Your task to perform on an android device: Go to Wikipedia Image 0: 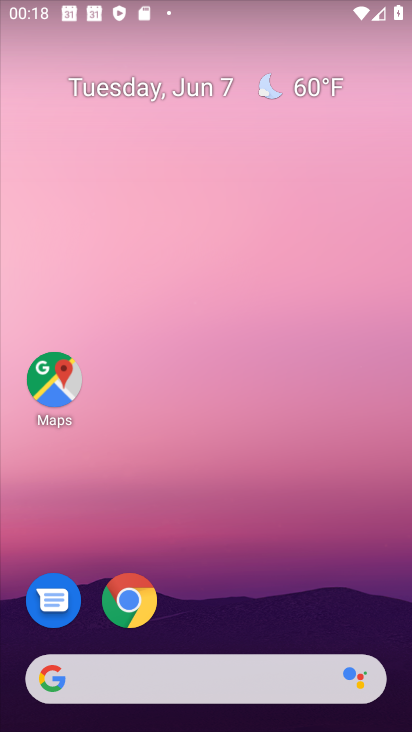
Step 0: click (237, 114)
Your task to perform on an android device: Go to Wikipedia Image 1: 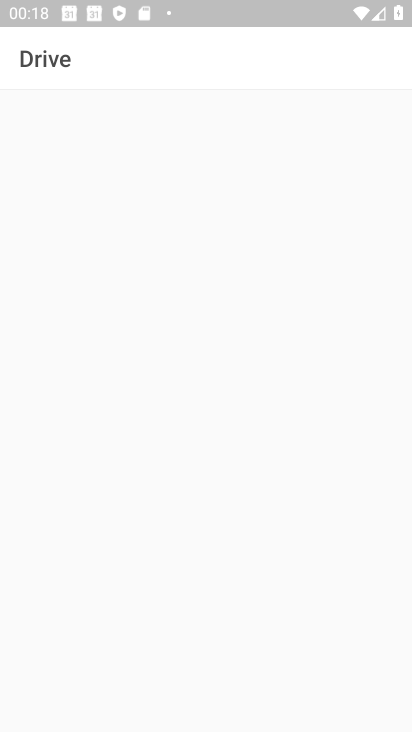
Step 1: press home button
Your task to perform on an android device: Go to Wikipedia Image 2: 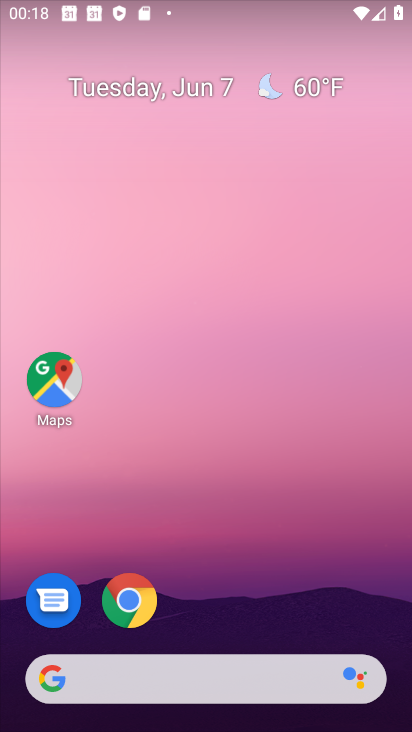
Step 2: click (134, 603)
Your task to perform on an android device: Go to Wikipedia Image 3: 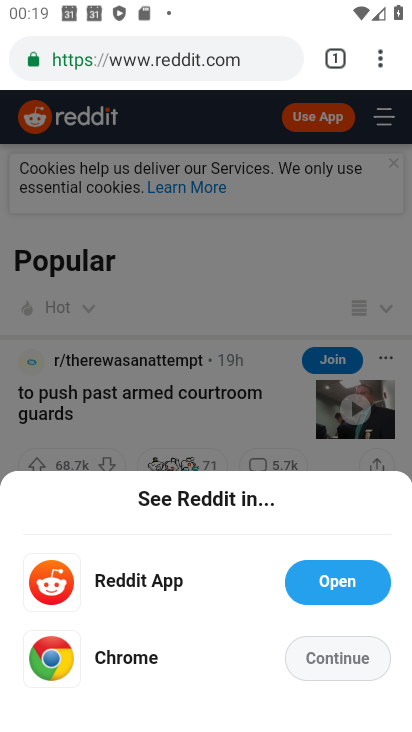
Step 3: click (378, 65)
Your task to perform on an android device: Go to Wikipedia Image 4: 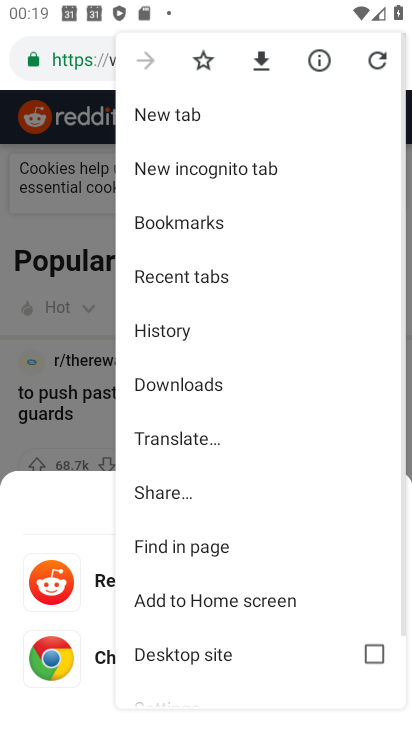
Step 4: click (174, 115)
Your task to perform on an android device: Go to Wikipedia Image 5: 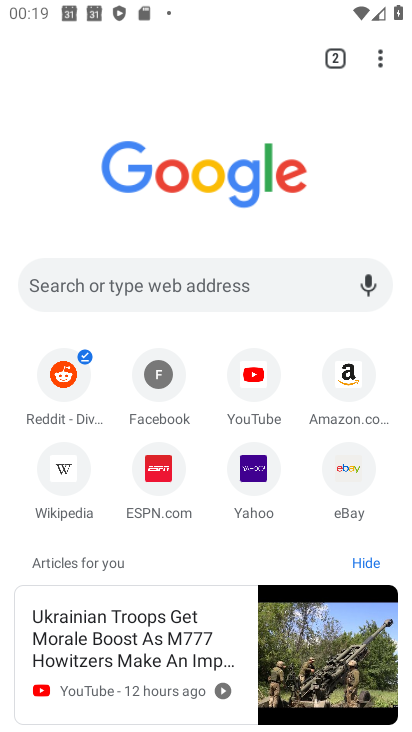
Step 5: click (58, 470)
Your task to perform on an android device: Go to Wikipedia Image 6: 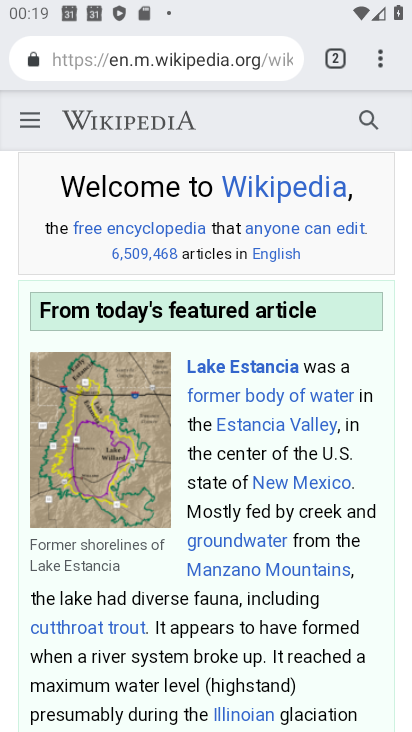
Step 6: task complete